Your task to perform on an android device: Open privacy settings Image 0: 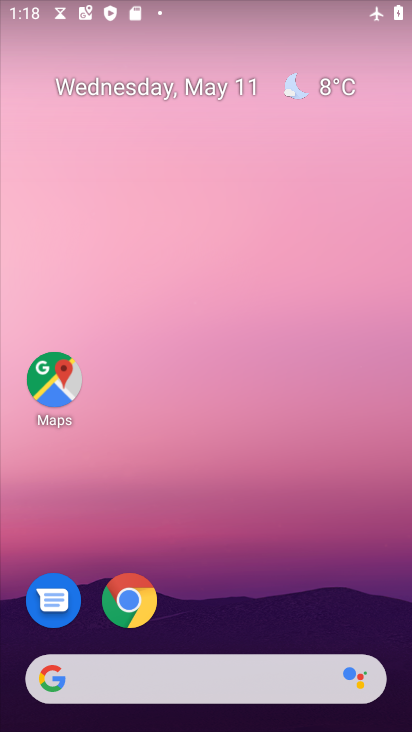
Step 0: click (134, 597)
Your task to perform on an android device: Open privacy settings Image 1: 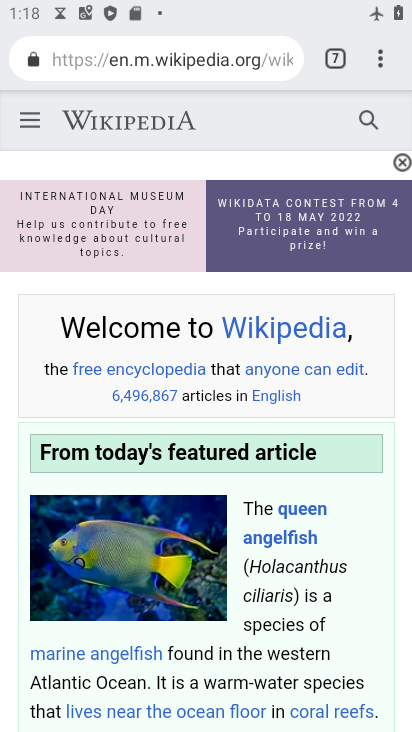
Step 1: click (377, 62)
Your task to perform on an android device: Open privacy settings Image 2: 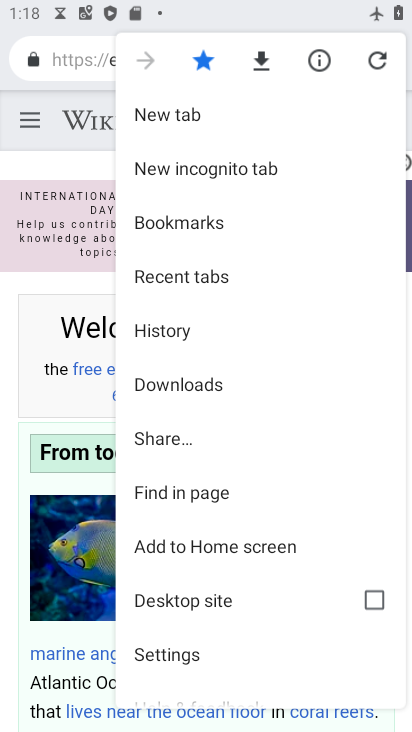
Step 2: click (213, 659)
Your task to perform on an android device: Open privacy settings Image 3: 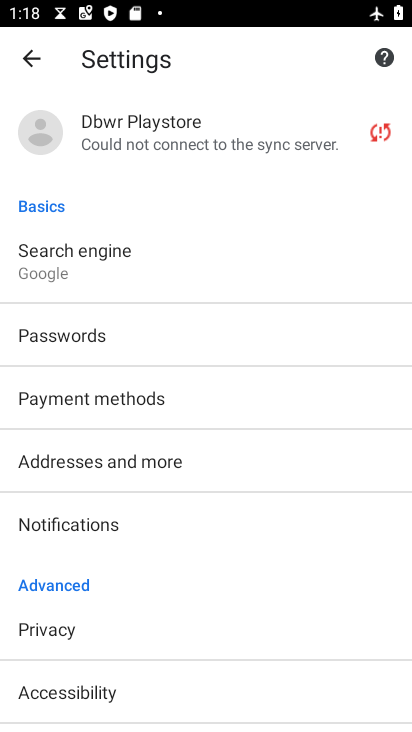
Step 3: click (135, 634)
Your task to perform on an android device: Open privacy settings Image 4: 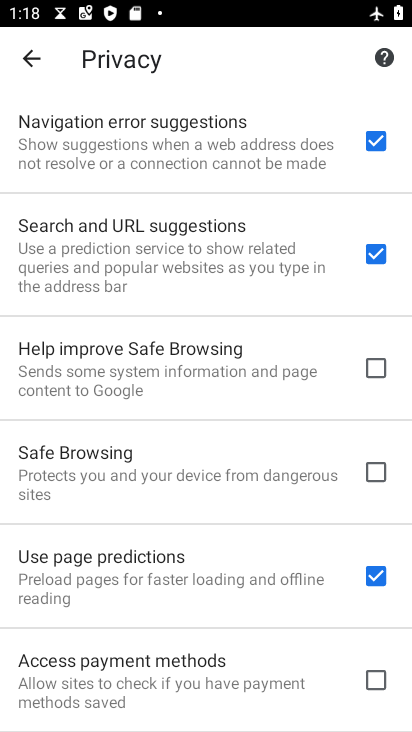
Step 4: task complete